Your task to perform on an android device: open app "Microsoft Authenticator" (install if not already installed) and go to login screen Image 0: 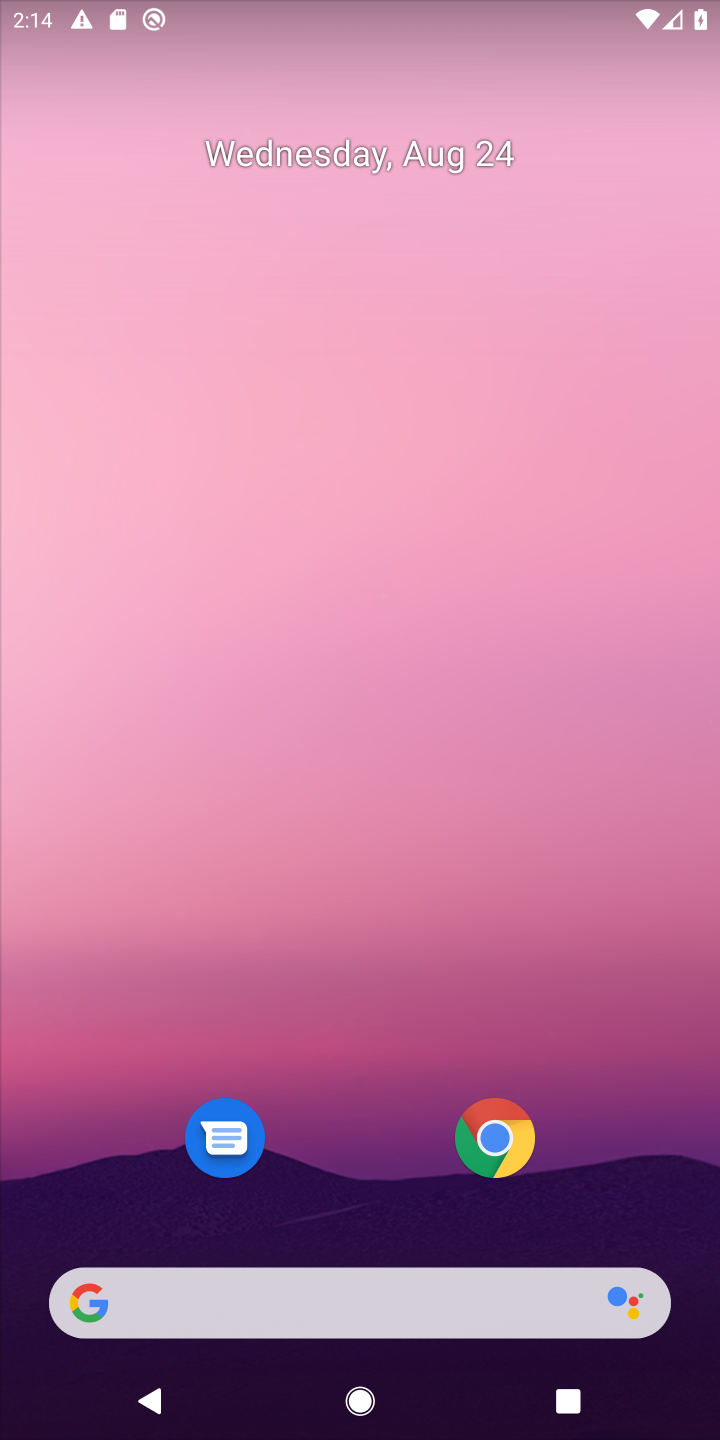
Step 0: drag from (350, 1002) to (369, 131)
Your task to perform on an android device: open app "Microsoft Authenticator" (install if not already installed) and go to login screen Image 1: 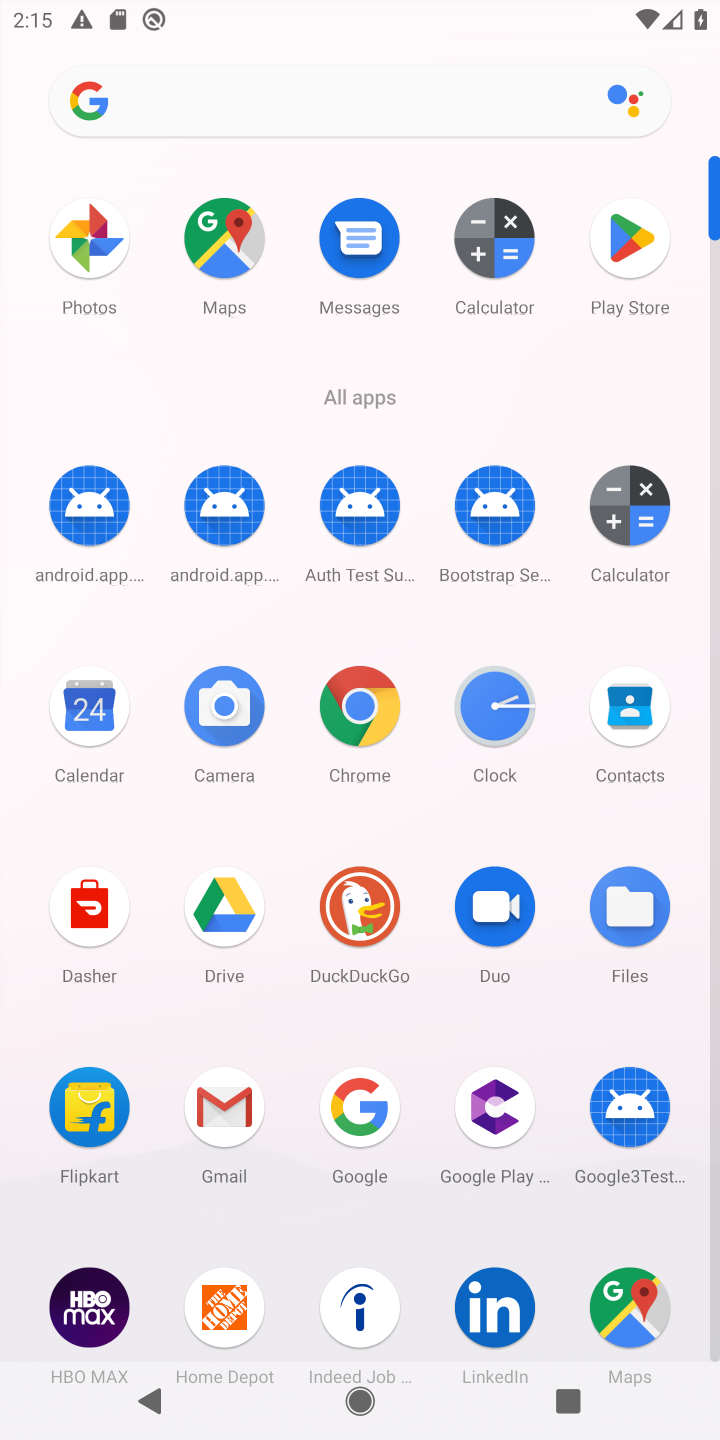
Step 1: click (631, 226)
Your task to perform on an android device: open app "Microsoft Authenticator" (install if not already installed) and go to login screen Image 2: 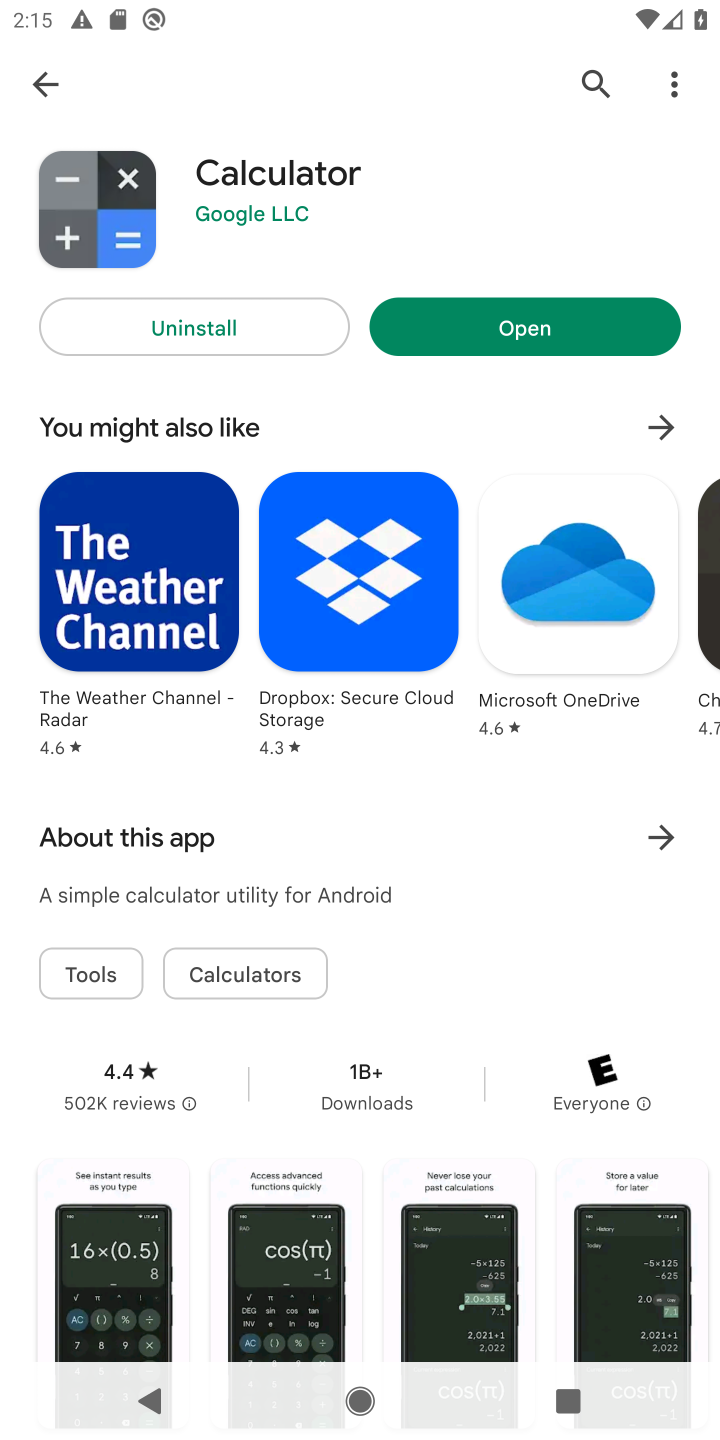
Step 2: click (604, 75)
Your task to perform on an android device: open app "Microsoft Authenticator" (install if not already installed) and go to login screen Image 3: 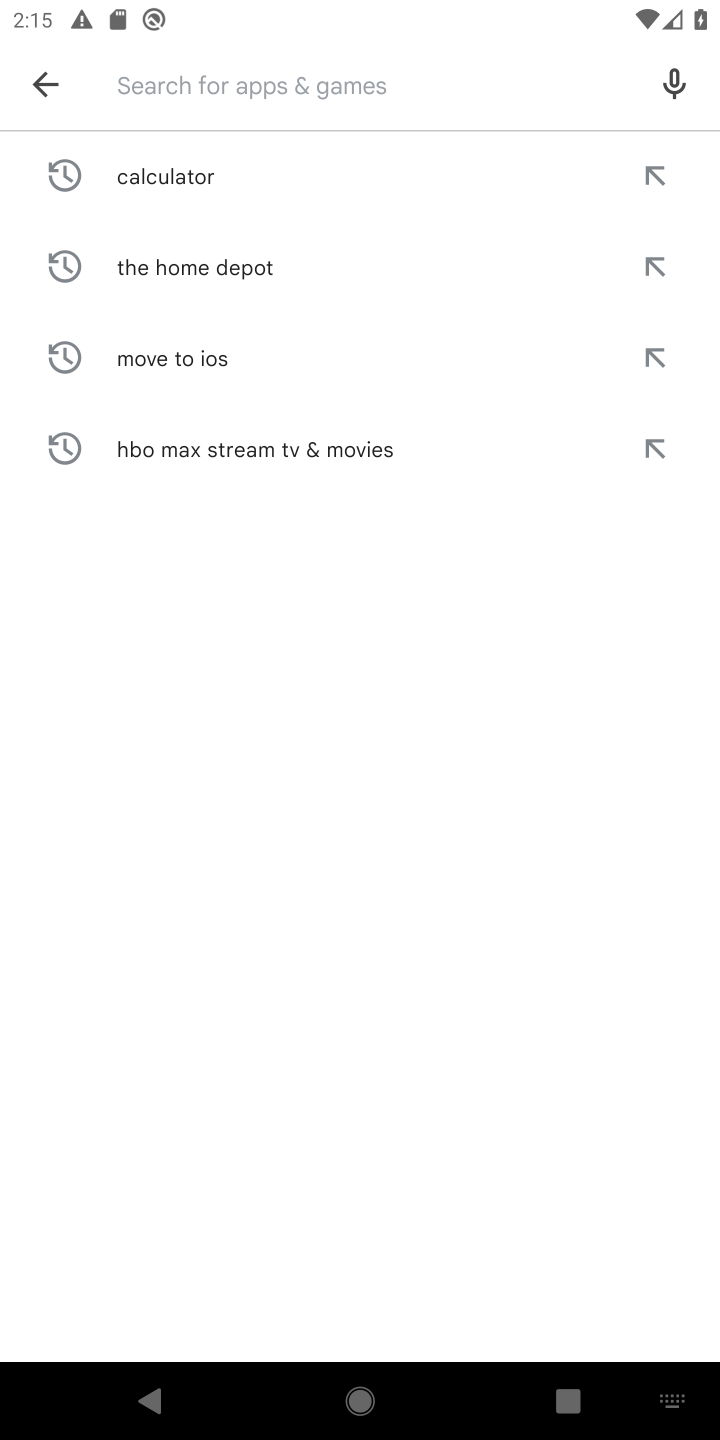
Step 3: type "Microsoft Authenticator"
Your task to perform on an android device: open app "Microsoft Authenticator" (install if not already installed) and go to login screen Image 4: 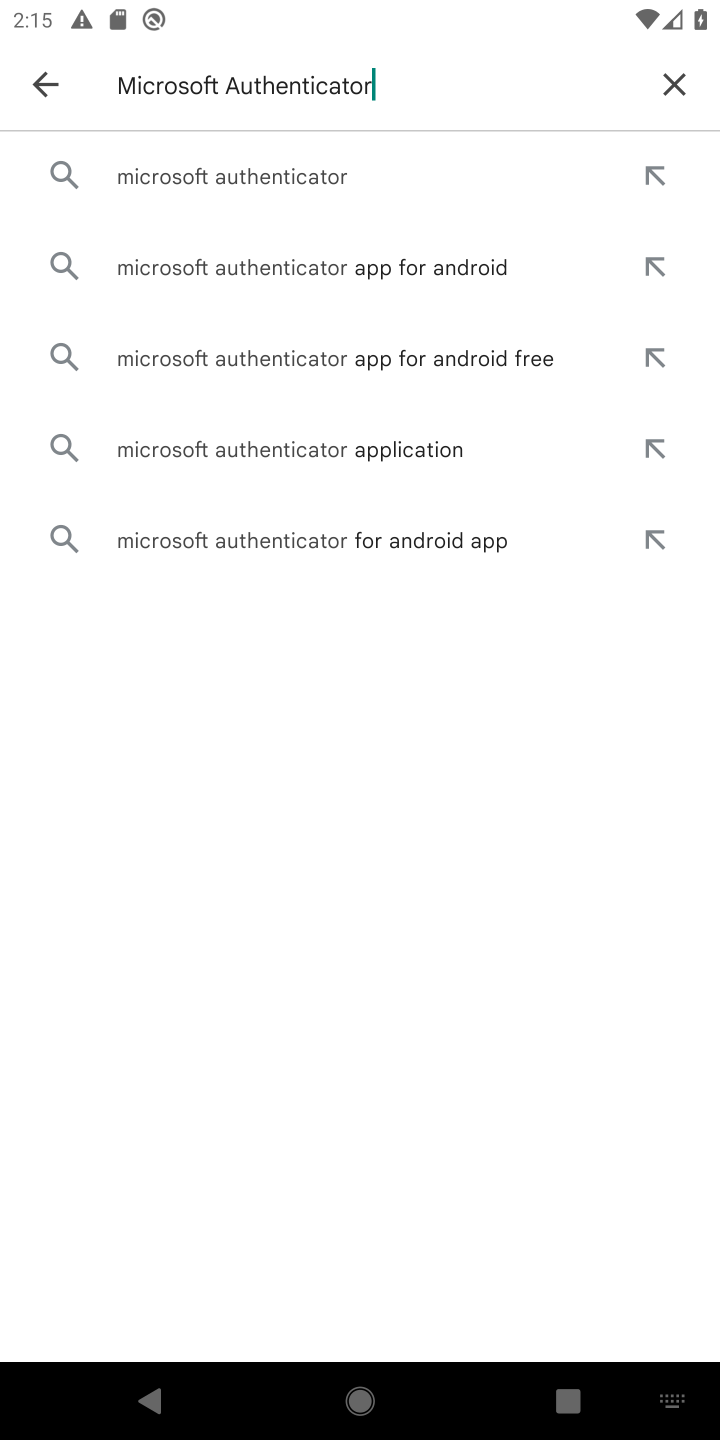
Step 4: click (254, 160)
Your task to perform on an android device: open app "Microsoft Authenticator" (install if not already installed) and go to login screen Image 5: 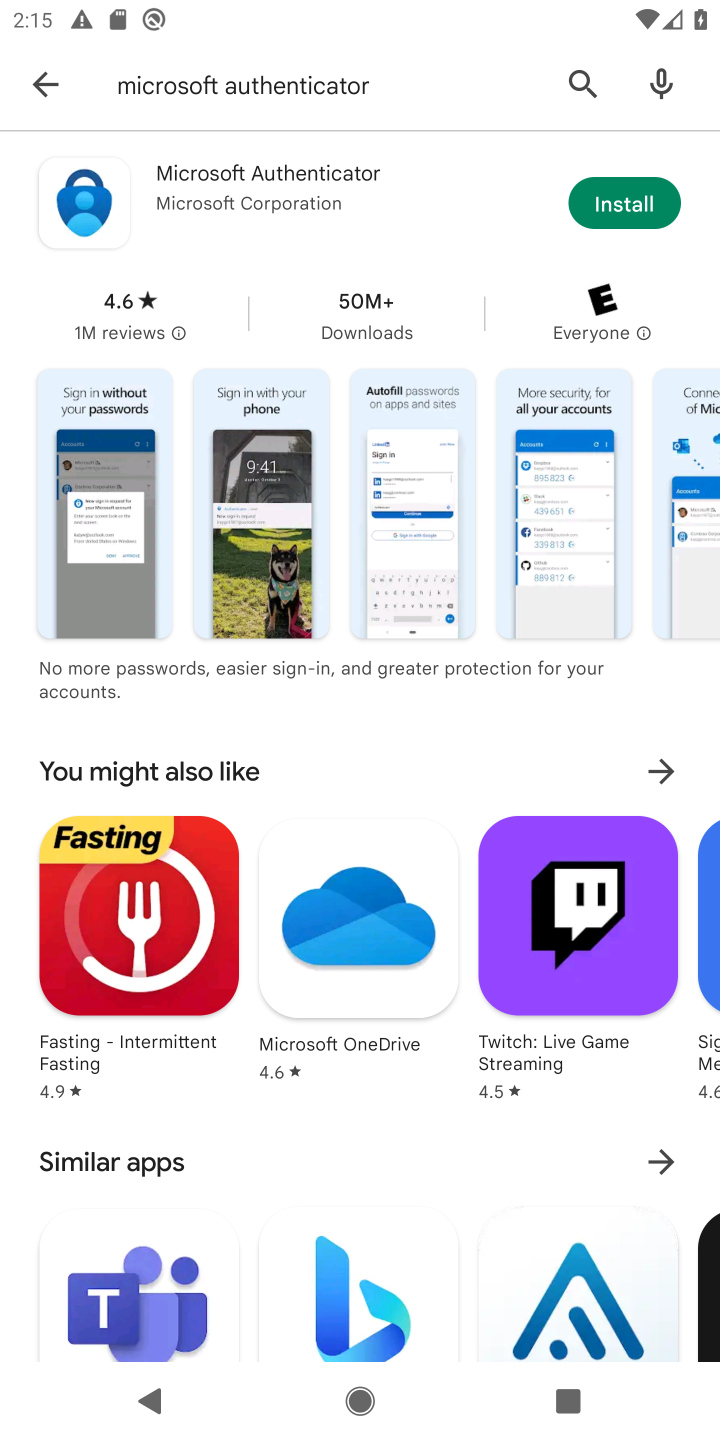
Step 5: click (621, 203)
Your task to perform on an android device: open app "Microsoft Authenticator" (install if not already installed) and go to login screen Image 6: 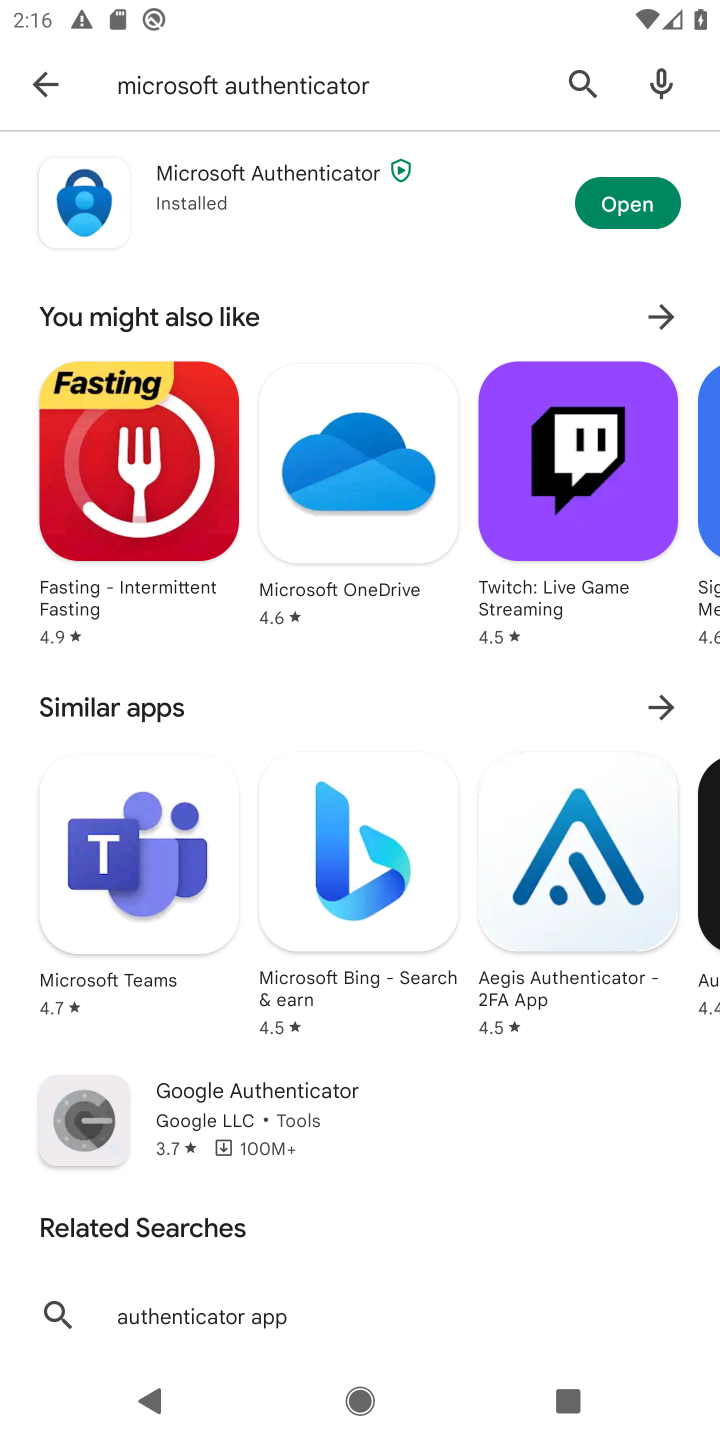
Step 6: click (620, 193)
Your task to perform on an android device: open app "Microsoft Authenticator" (install if not already installed) and go to login screen Image 7: 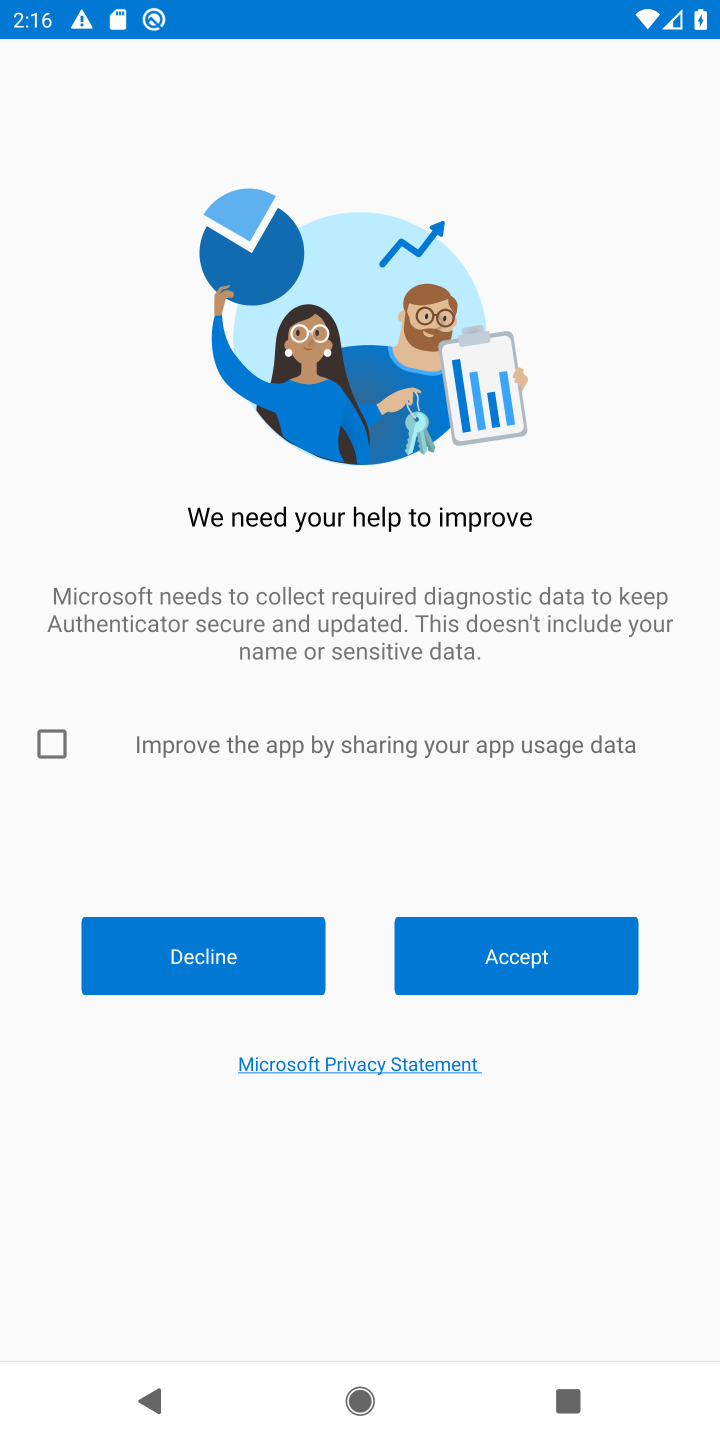
Step 7: click (530, 951)
Your task to perform on an android device: open app "Microsoft Authenticator" (install if not already installed) and go to login screen Image 8: 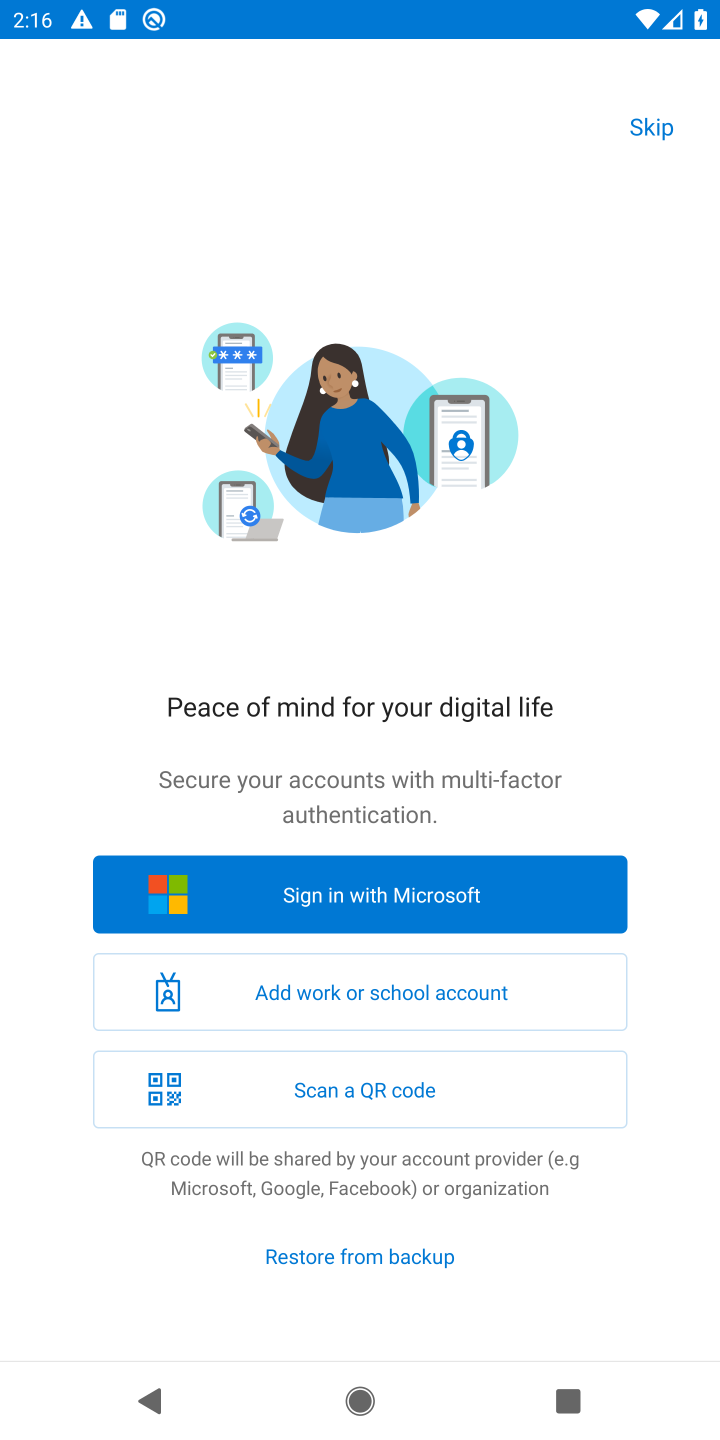
Step 8: task complete